Your task to perform on an android device: Open Chrome and go to the settings page Image 0: 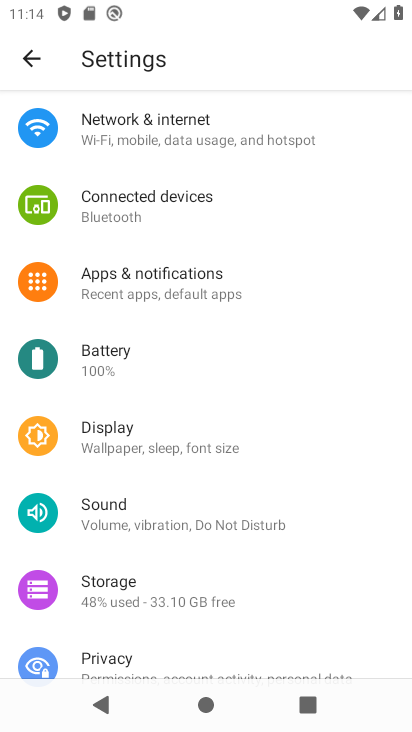
Step 0: press home button
Your task to perform on an android device: Open Chrome and go to the settings page Image 1: 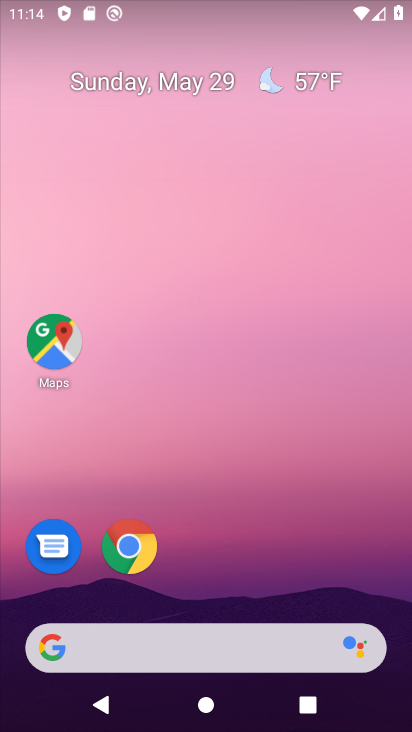
Step 1: click (127, 556)
Your task to perform on an android device: Open Chrome and go to the settings page Image 2: 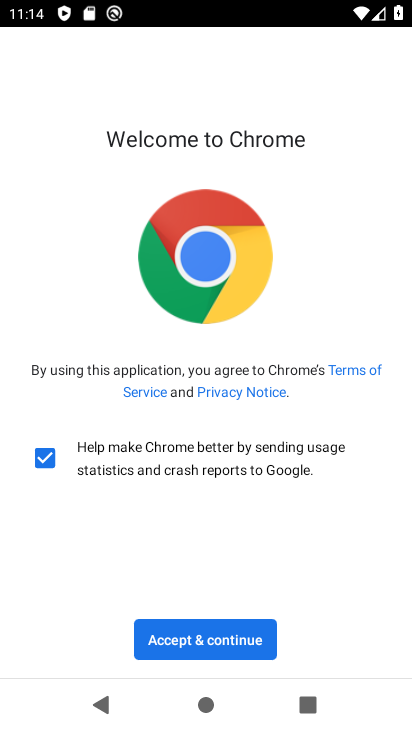
Step 2: click (223, 638)
Your task to perform on an android device: Open Chrome and go to the settings page Image 3: 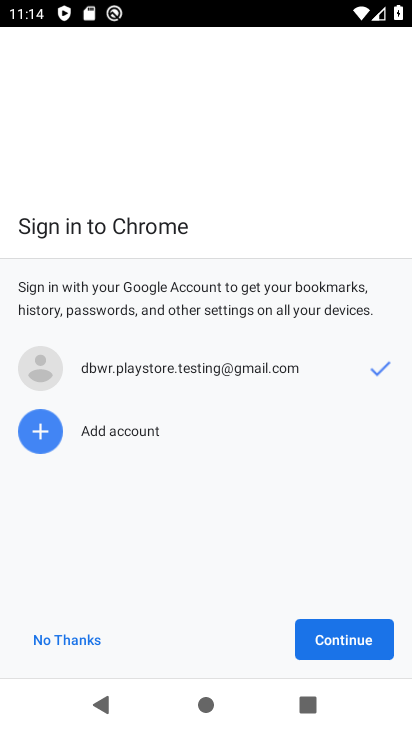
Step 3: click (363, 640)
Your task to perform on an android device: Open Chrome and go to the settings page Image 4: 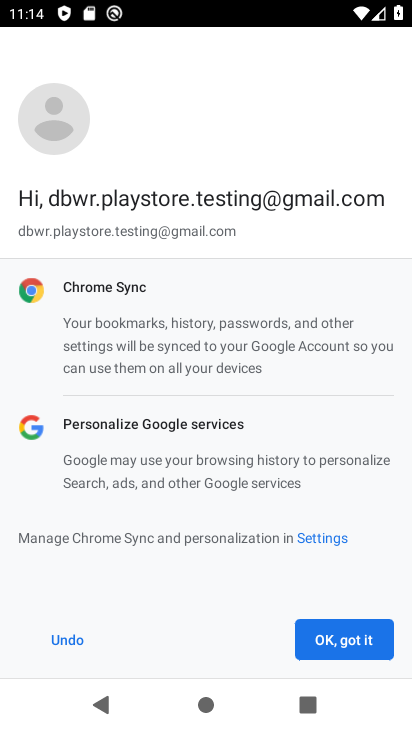
Step 4: click (363, 640)
Your task to perform on an android device: Open Chrome and go to the settings page Image 5: 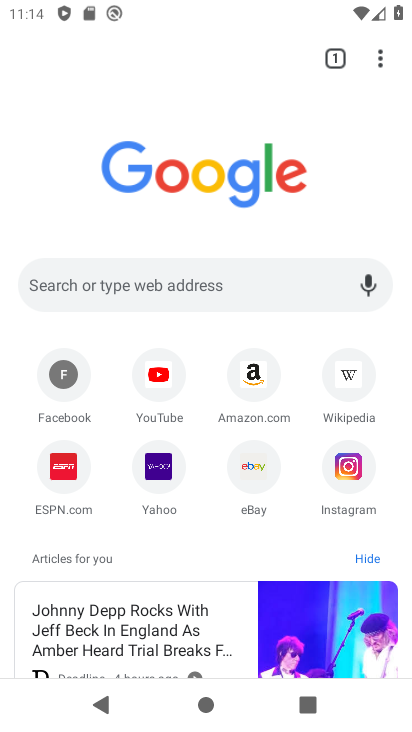
Step 5: task complete